Your task to perform on an android device: find photos in the google photos app Image 0: 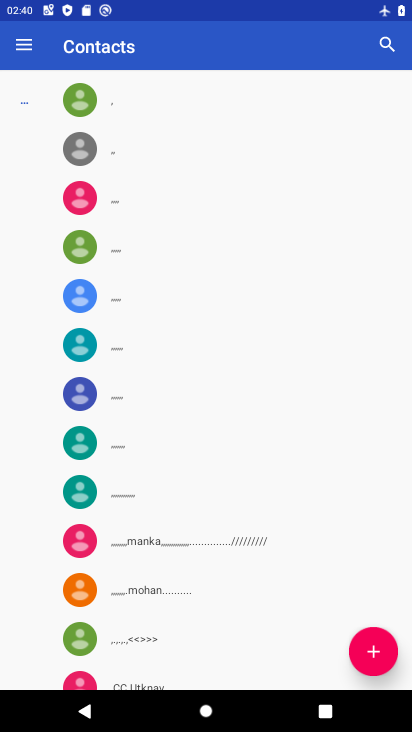
Step 0: press home button
Your task to perform on an android device: find photos in the google photos app Image 1: 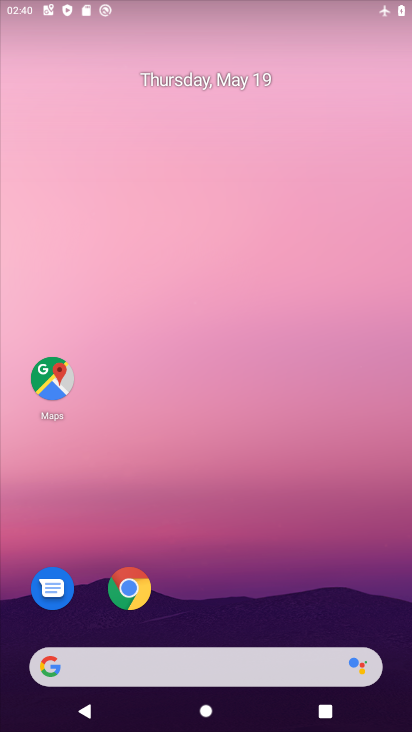
Step 1: drag from (251, 555) to (329, 40)
Your task to perform on an android device: find photos in the google photos app Image 2: 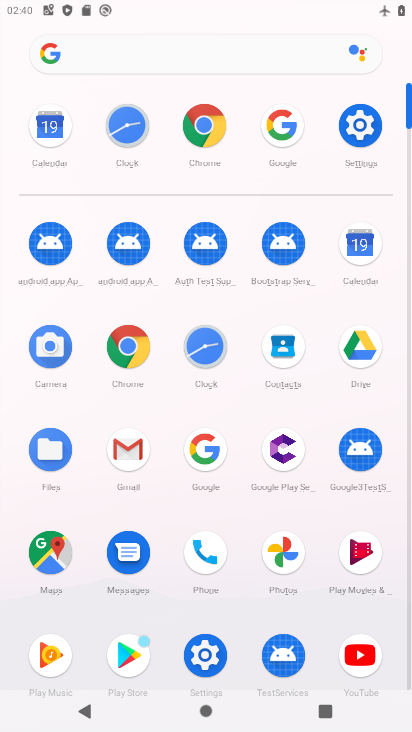
Step 2: click (289, 549)
Your task to perform on an android device: find photos in the google photos app Image 3: 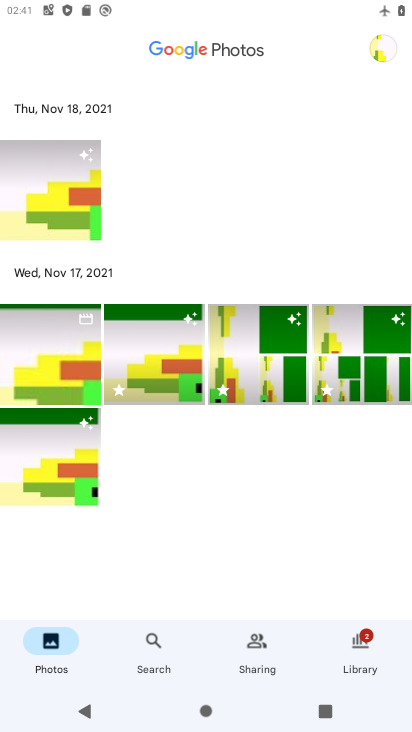
Step 3: task complete